Your task to perform on an android device: change the clock display to analog Image 0: 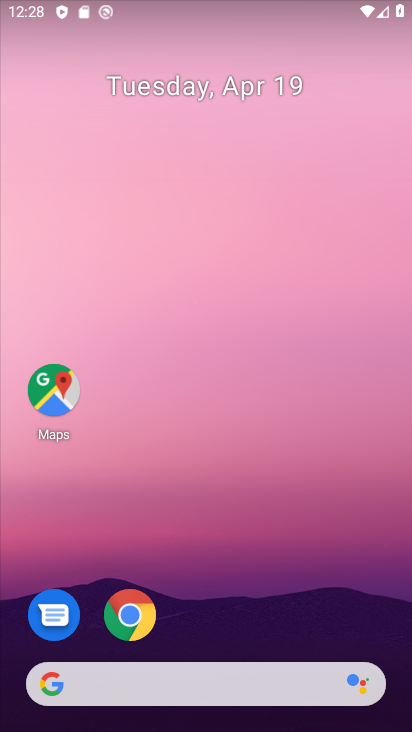
Step 0: drag from (251, 591) to (274, 140)
Your task to perform on an android device: change the clock display to analog Image 1: 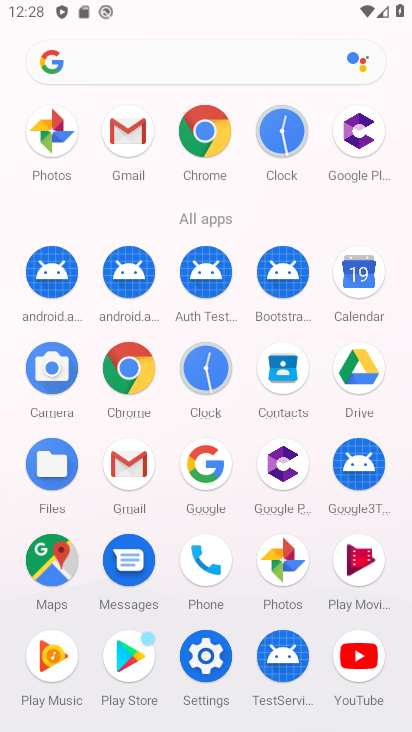
Step 1: click (275, 139)
Your task to perform on an android device: change the clock display to analog Image 2: 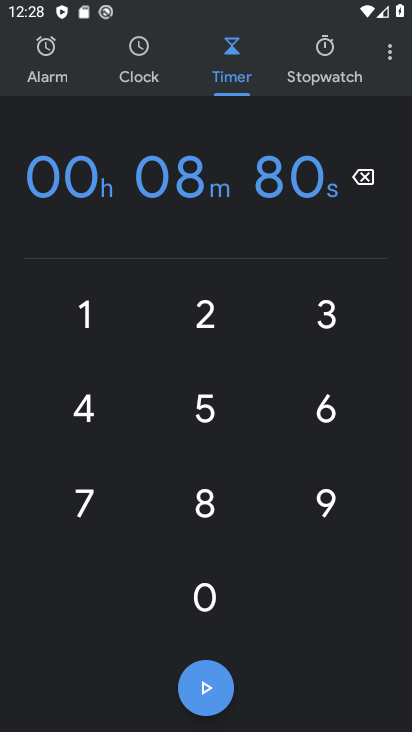
Step 2: click (389, 54)
Your task to perform on an android device: change the clock display to analog Image 3: 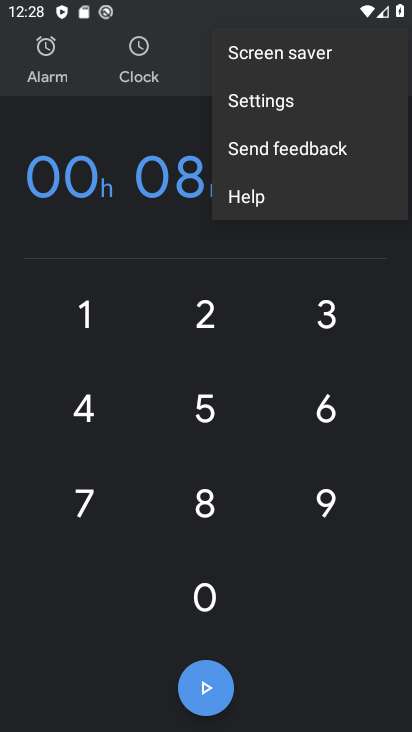
Step 3: click (285, 108)
Your task to perform on an android device: change the clock display to analog Image 4: 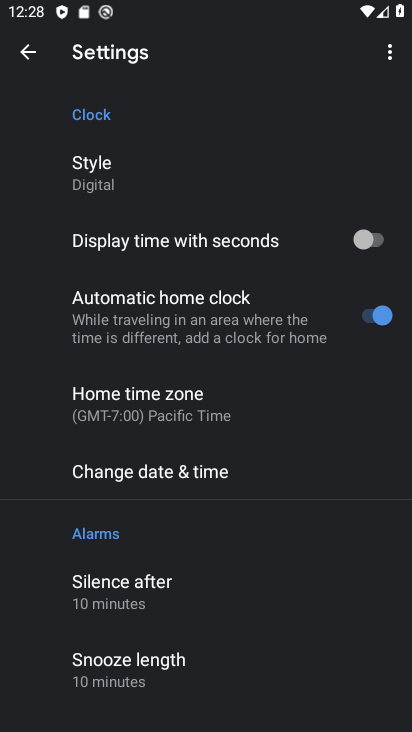
Step 4: click (95, 179)
Your task to perform on an android device: change the clock display to analog Image 5: 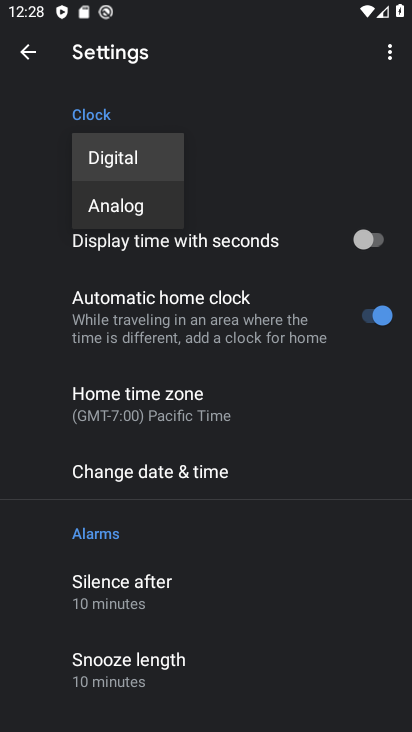
Step 5: click (134, 207)
Your task to perform on an android device: change the clock display to analog Image 6: 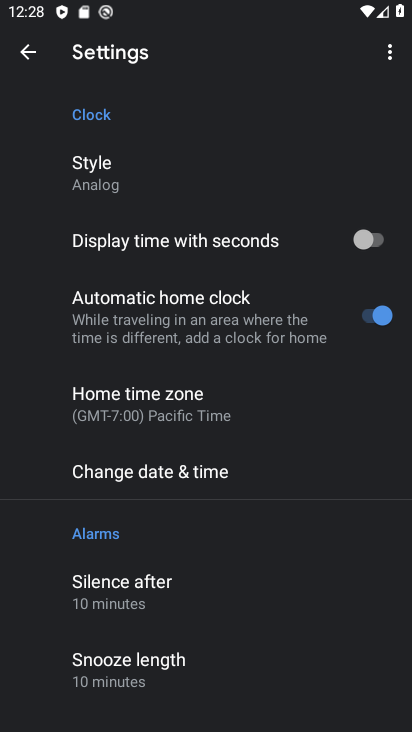
Step 6: task complete